Your task to perform on an android device: Do I have any events this weekend? Image 0: 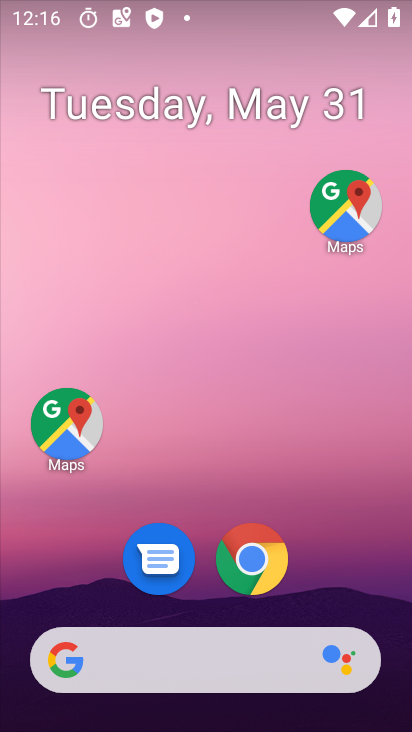
Step 0: drag from (339, 465) to (375, 30)
Your task to perform on an android device: Do I have any events this weekend? Image 1: 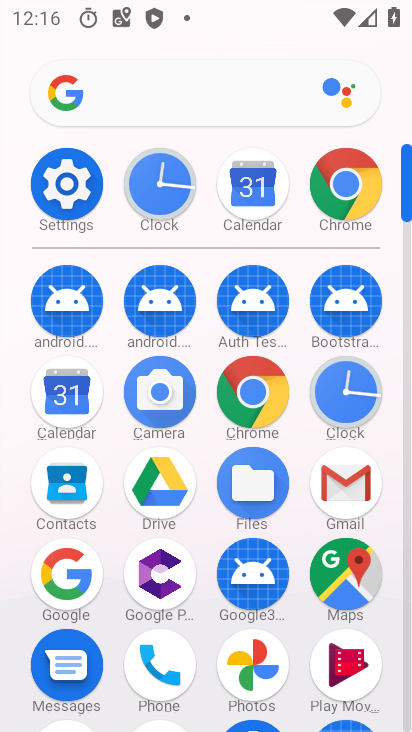
Step 1: click (73, 401)
Your task to perform on an android device: Do I have any events this weekend? Image 2: 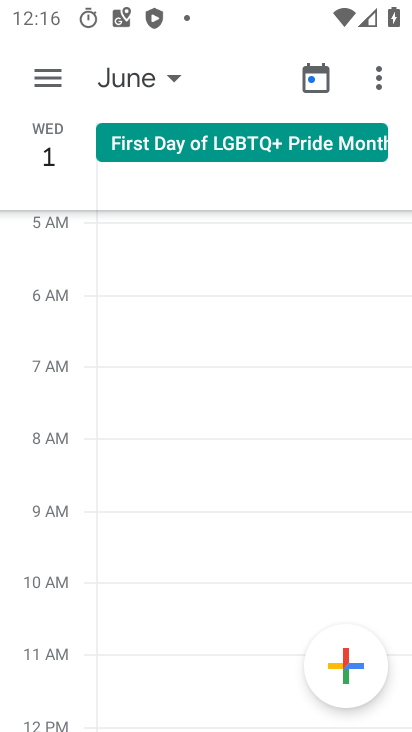
Step 2: click (151, 74)
Your task to perform on an android device: Do I have any events this weekend? Image 3: 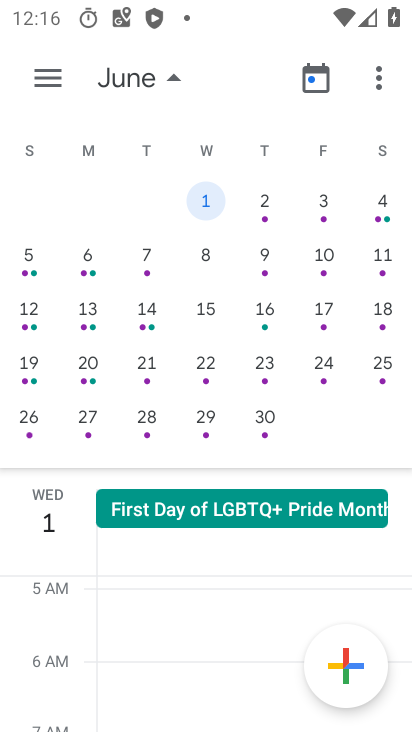
Step 3: click (53, 69)
Your task to perform on an android device: Do I have any events this weekend? Image 4: 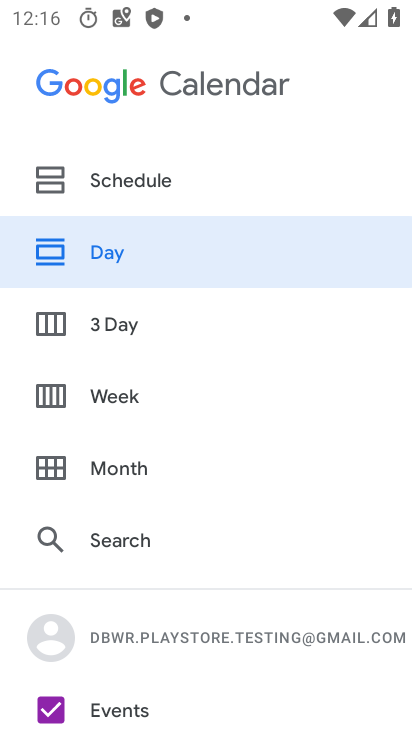
Step 4: click (109, 312)
Your task to perform on an android device: Do I have any events this weekend? Image 5: 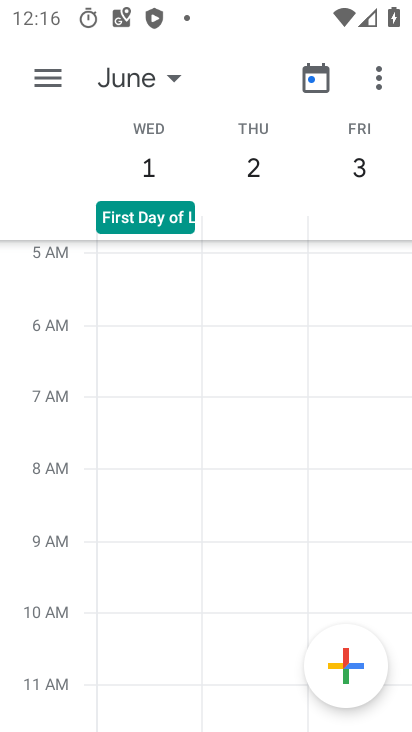
Step 5: task complete